Your task to perform on an android device: Is it going to rain tomorrow? Image 0: 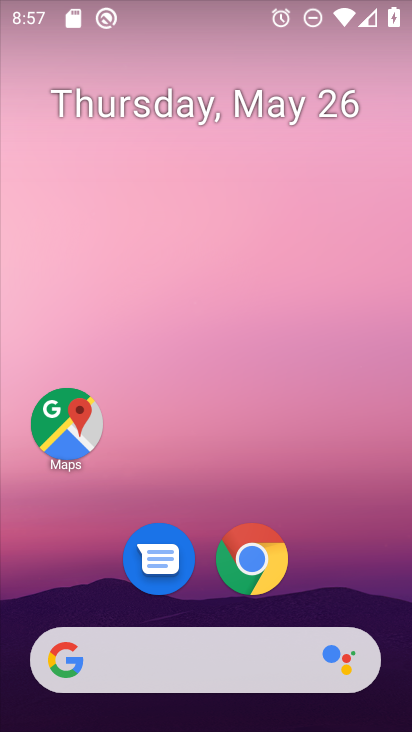
Step 0: drag from (323, 591) to (332, 95)
Your task to perform on an android device: Is it going to rain tomorrow? Image 1: 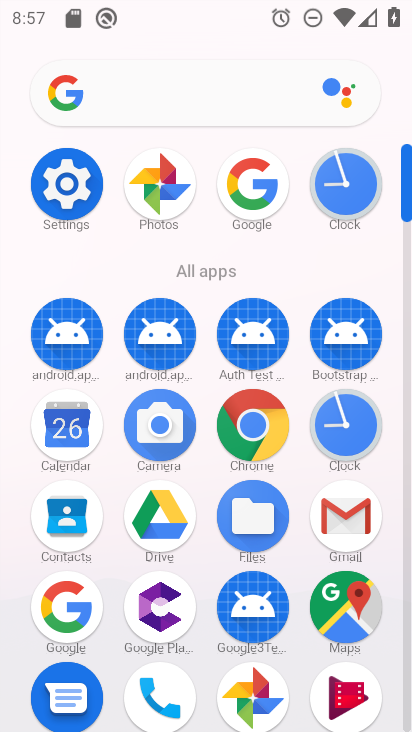
Step 1: click (257, 184)
Your task to perform on an android device: Is it going to rain tomorrow? Image 2: 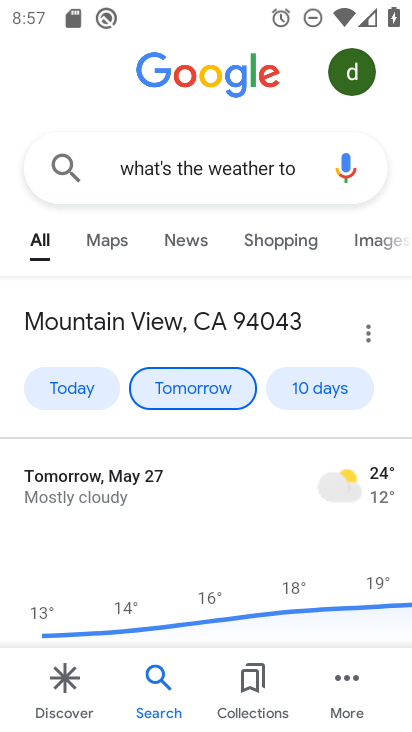
Step 2: click (292, 168)
Your task to perform on an android device: Is it going to rain tomorrow? Image 3: 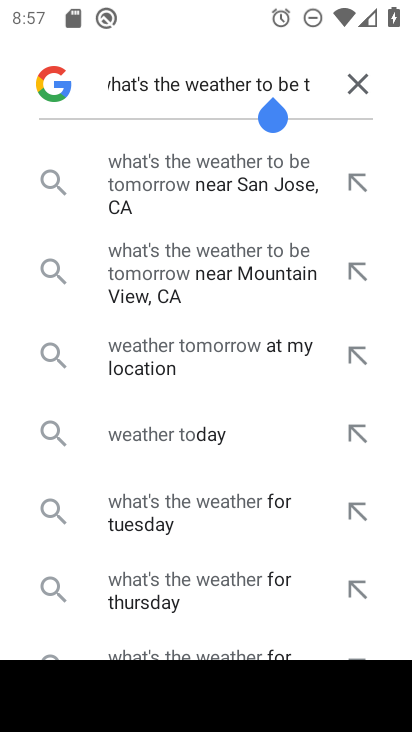
Step 3: click (358, 79)
Your task to perform on an android device: Is it going to rain tomorrow? Image 4: 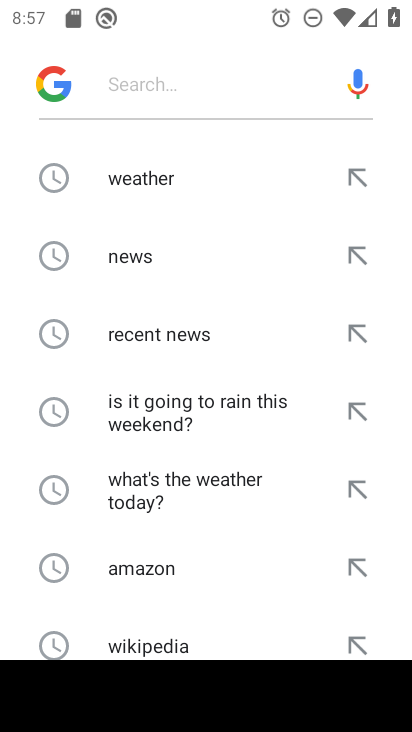
Step 4: drag from (184, 539) to (207, 238)
Your task to perform on an android device: Is it going to rain tomorrow? Image 5: 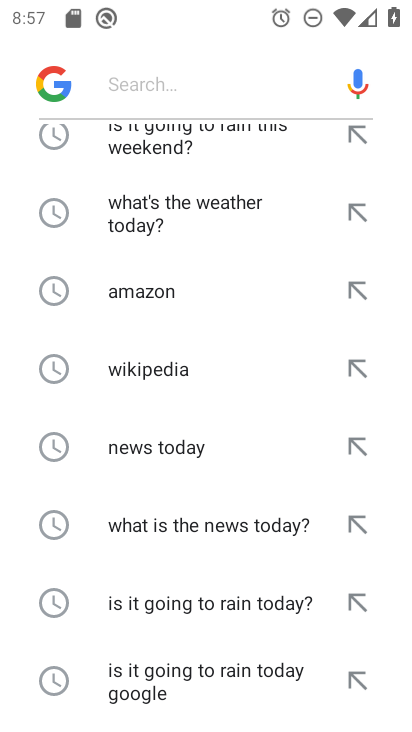
Step 5: drag from (186, 635) to (252, 266)
Your task to perform on an android device: Is it going to rain tomorrow? Image 6: 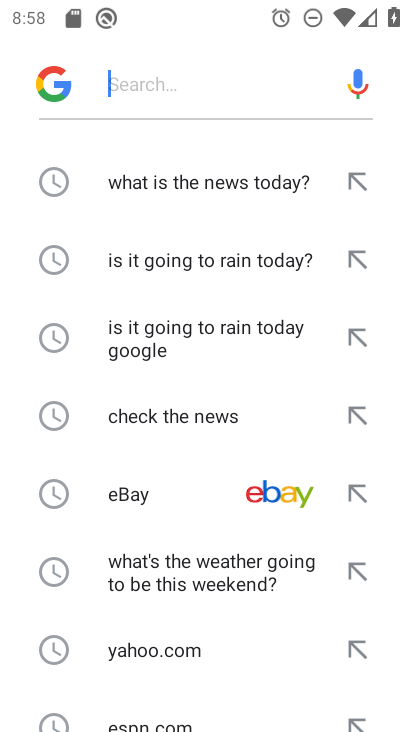
Step 6: type "is it going to rain tomorrow"
Your task to perform on an android device: Is it going to rain tomorrow? Image 7: 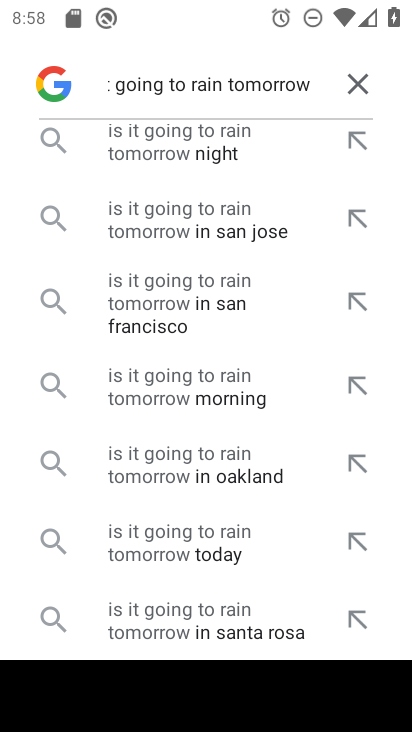
Step 7: drag from (231, 229) to (232, 561)
Your task to perform on an android device: Is it going to rain tomorrow? Image 8: 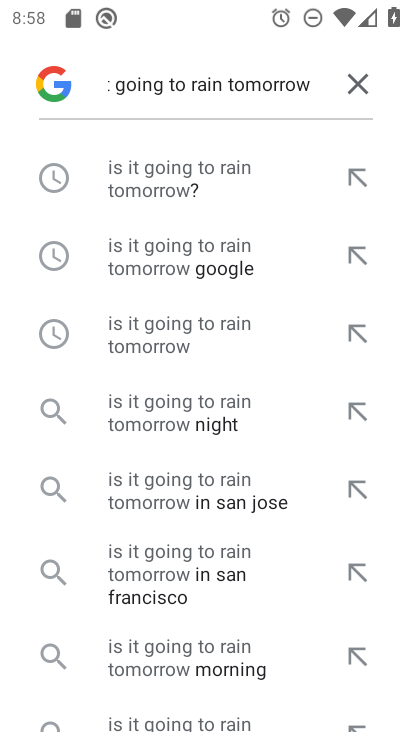
Step 8: click (187, 183)
Your task to perform on an android device: Is it going to rain tomorrow? Image 9: 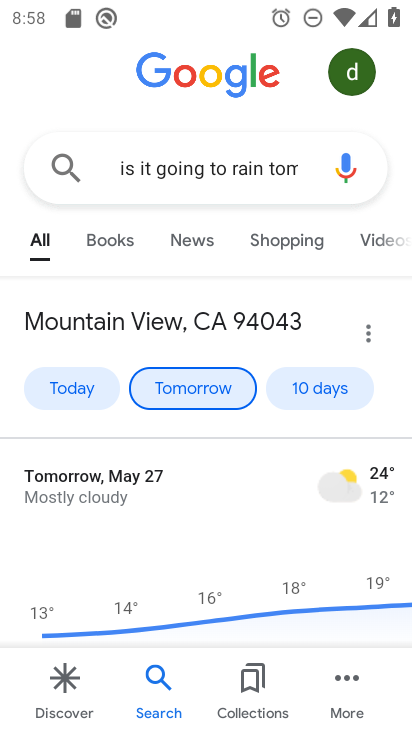
Step 9: task complete